Your task to perform on an android device: toggle notification dots Image 0: 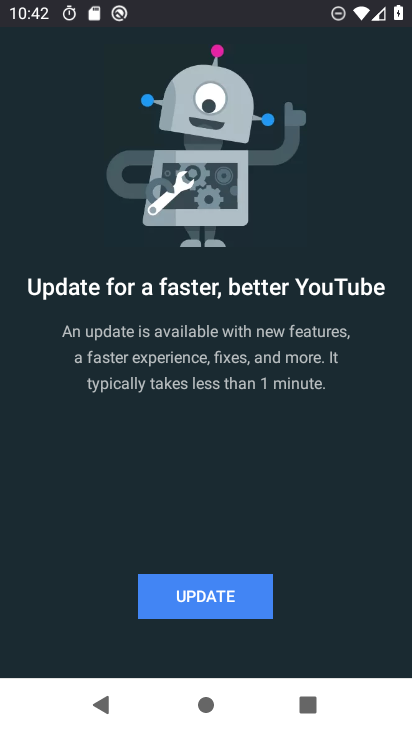
Step 0: press home button
Your task to perform on an android device: toggle notification dots Image 1: 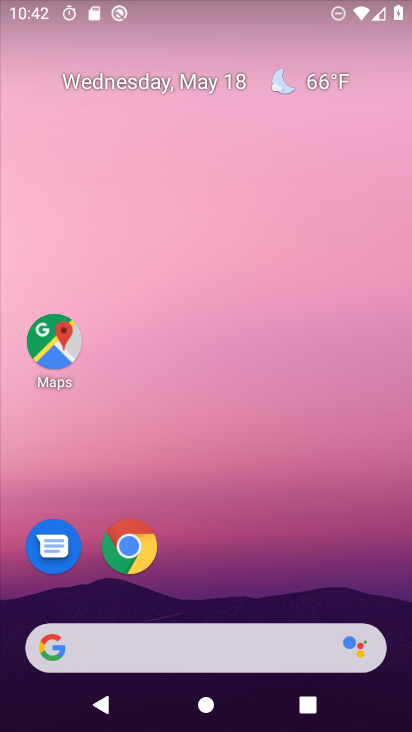
Step 1: drag from (278, 615) to (318, 66)
Your task to perform on an android device: toggle notification dots Image 2: 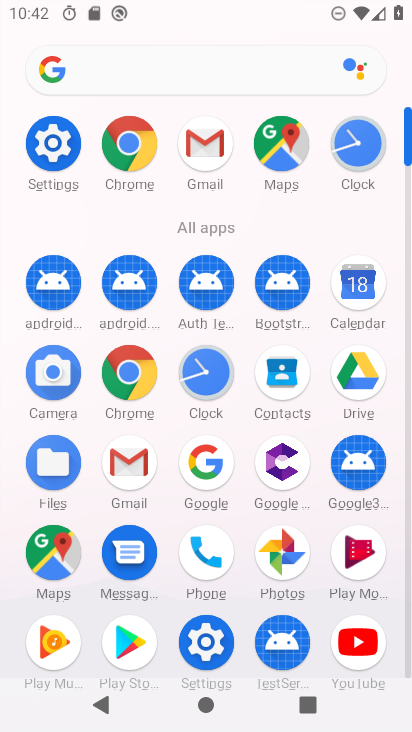
Step 2: click (43, 143)
Your task to perform on an android device: toggle notification dots Image 3: 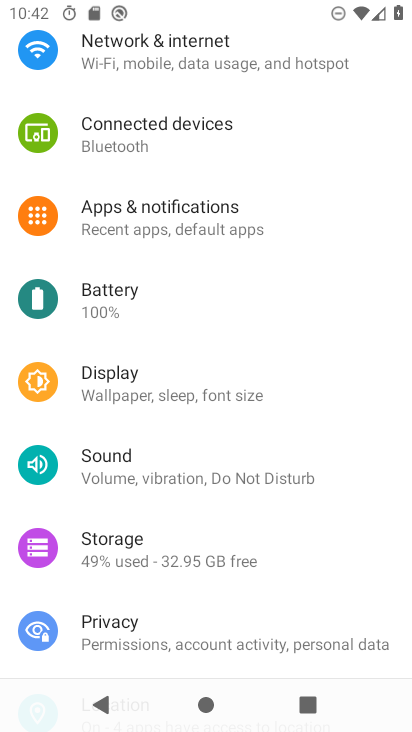
Step 3: click (164, 221)
Your task to perform on an android device: toggle notification dots Image 4: 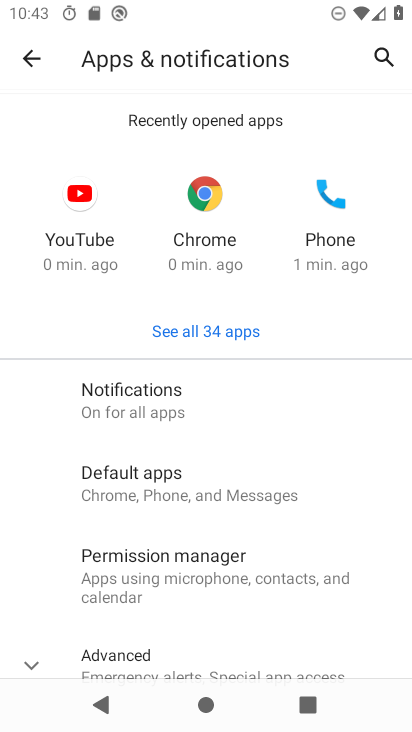
Step 4: click (137, 390)
Your task to perform on an android device: toggle notification dots Image 5: 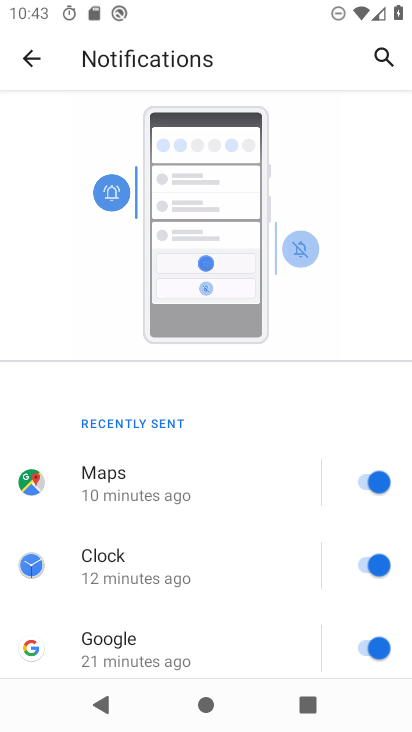
Step 5: drag from (170, 618) to (266, 162)
Your task to perform on an android device: toggle notification dots Image 6: 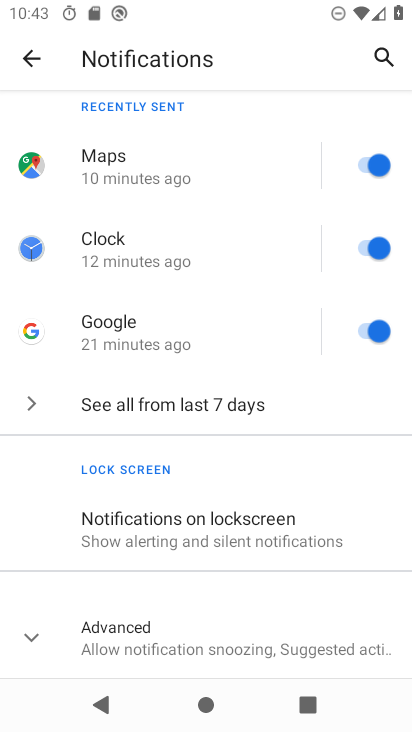
Step 6: click (159, 637)
Your task to perform on an android device: toggle notification dots Image 7: 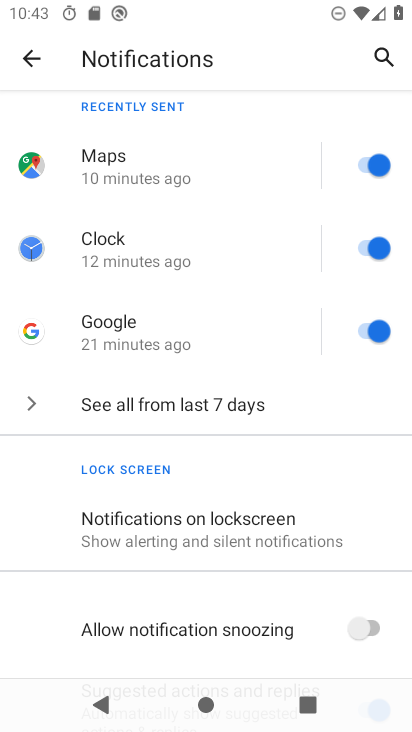
Step 7: drag from (159, 637) to (288, 166)
Your task to perform on an android device: toggle notification dots Image 8: 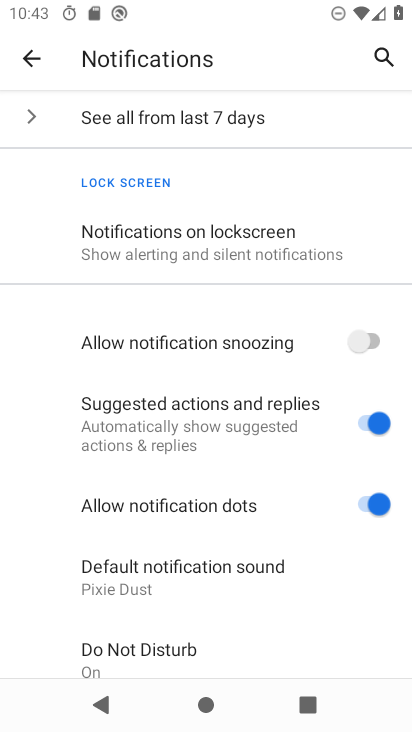
Step 8: drag from (168, 632) to (242, 355)
Your task to perform on an android device: toggle notification dots Image 9: 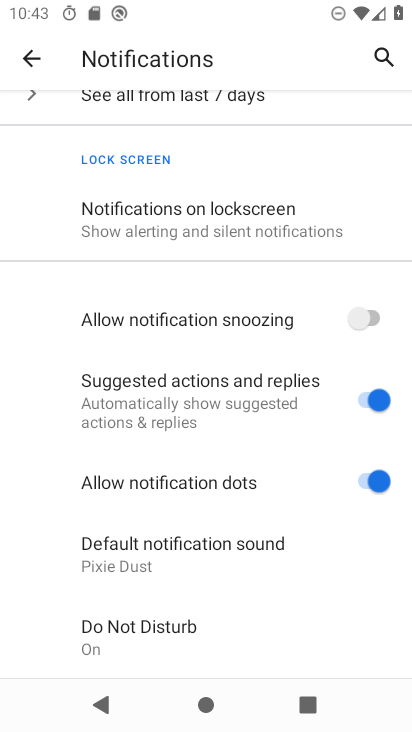
Step 9: click (371, 475)
Your task to perform on an android device: toggle notification dots Image 10: 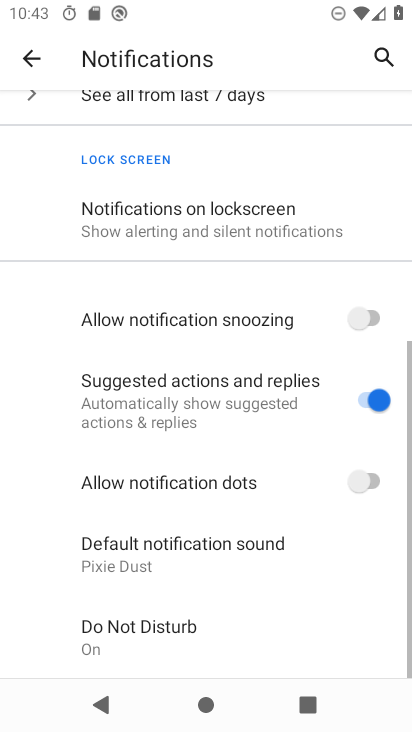
Step 10: click (371, 475)
Your task to perform on an android device: toggle notification dots Image 11: 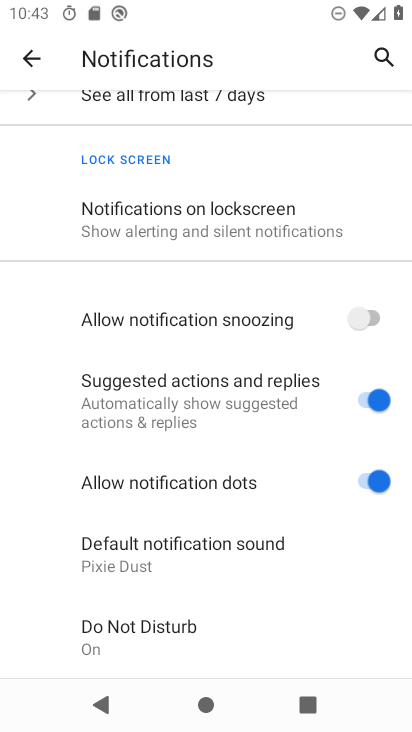
Step 11: task complete